Your task to perform on an android device: change the clock display to digital Image 0: 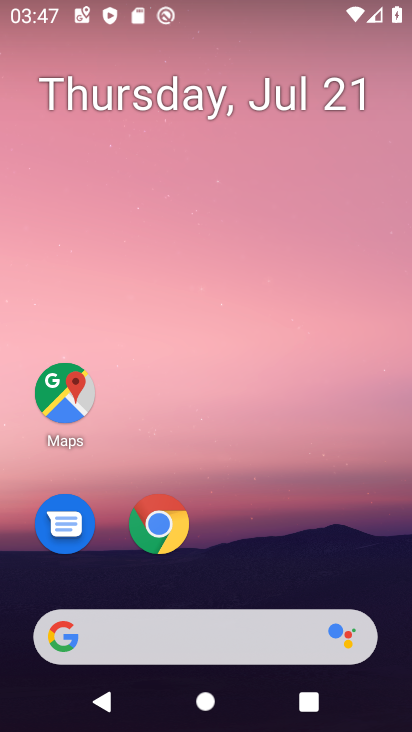
Step 0: drag from (278, 546) to (281, 0)
Your task to perform on an android device: change the clock display to digital Image 1: 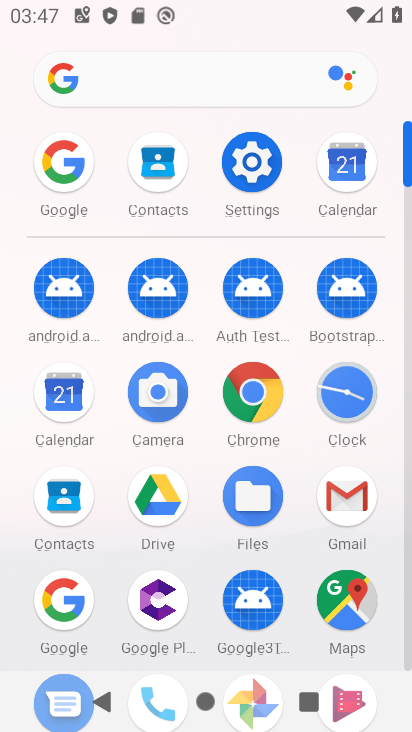
Step 1: click (343, 385)
Your task to perform on an android device: change the clock display to digital Image 2: 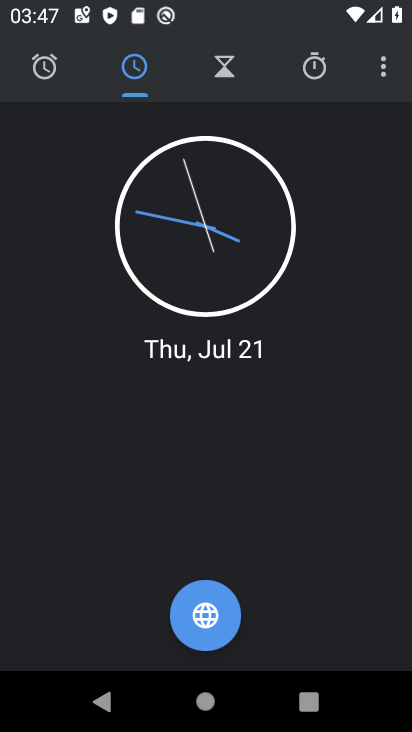
Step 2: click (382, 77)
Your task to perform on an android device: change the clock display to digital Image 3: 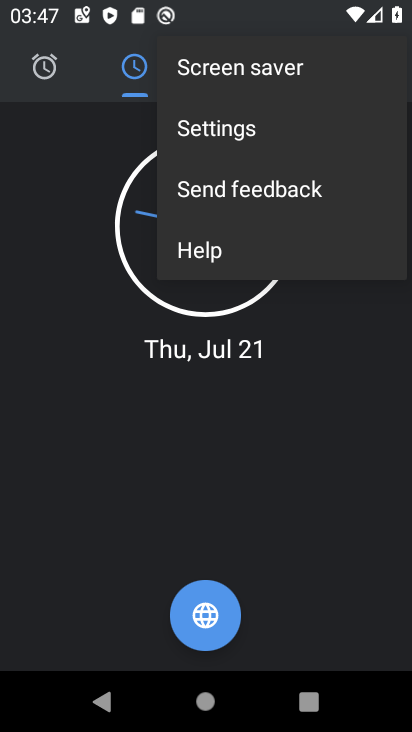
Step 3: click (251, 133)
Your task to perform on an android device: change the clock display to digital Image 4: 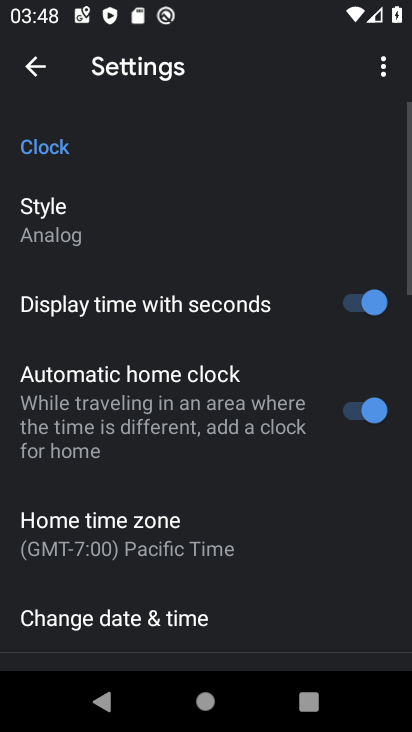
Step 4: click (78, 237)
Your task to perform on an android device: change the clock display to digital Image 5: 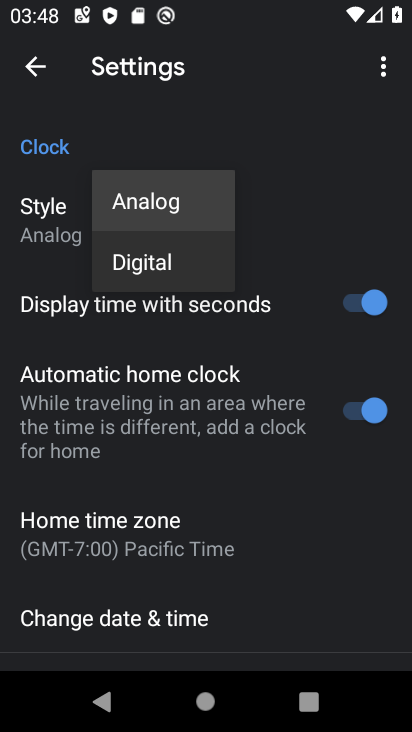
Step 5: click (132, 265)
Your task to perform on an android device: change the clock display to digital Image 6: 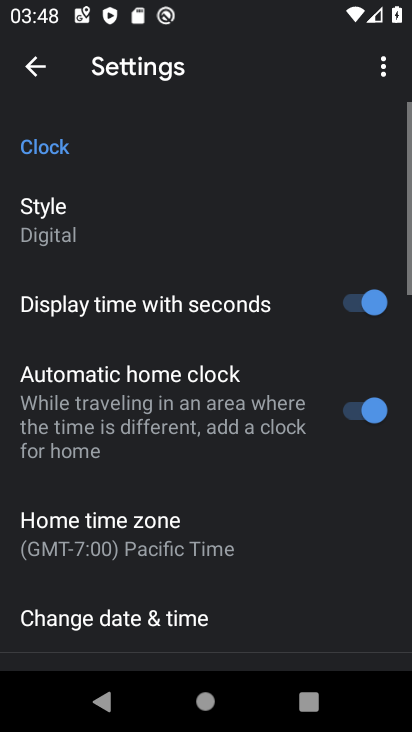
Step 6: click (39, 62)
Your task to perform on an android device: change the clock display to digital Image 7: 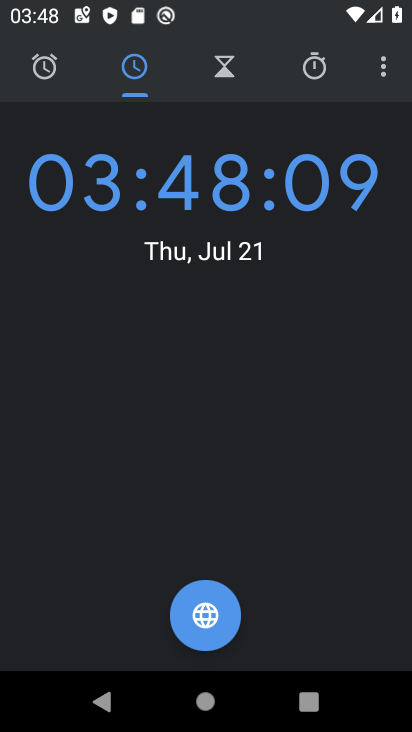
Step 7: task complete